Your task to perform on an android device: add a label to a message in the gmail app Image 0: 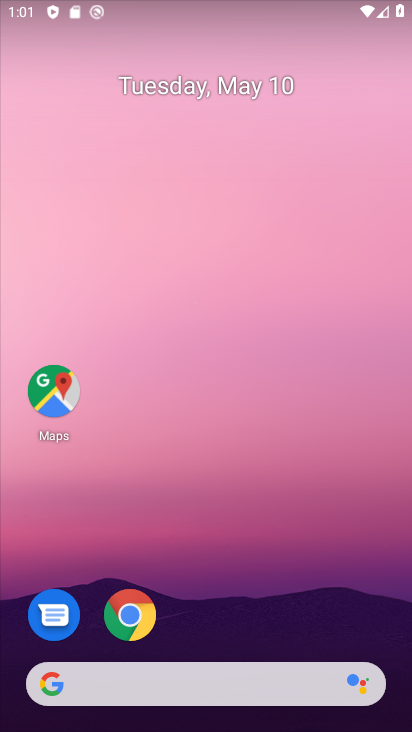
Step 0: drag from (220, 620) to (268, 16)
Your task to perform on an android device: add a label to a message in the gmail app Image 1: 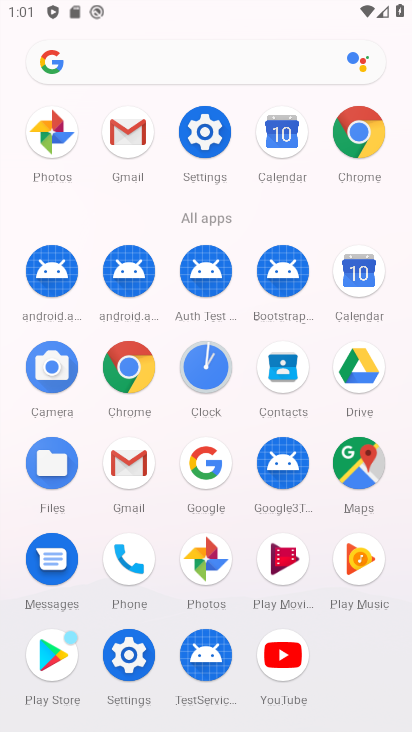
Step 1: click (129, 479)
Your task to perform on an android device: add a label to a message in the gmail app Image 2: 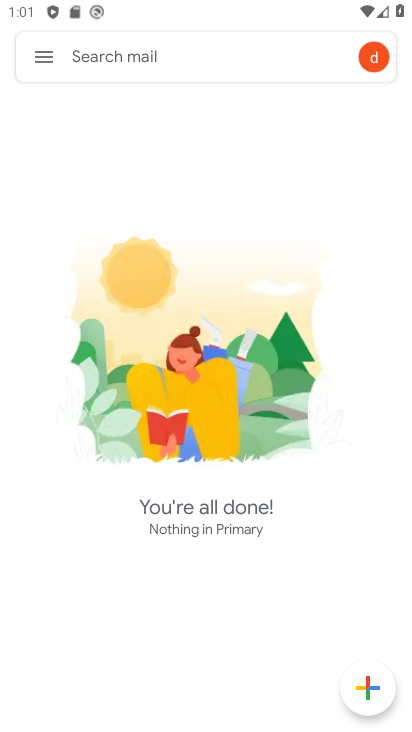
Step 2: click (51, 57)
Your task to perform on an android device: add a label to a message in the gmail app Image 3: 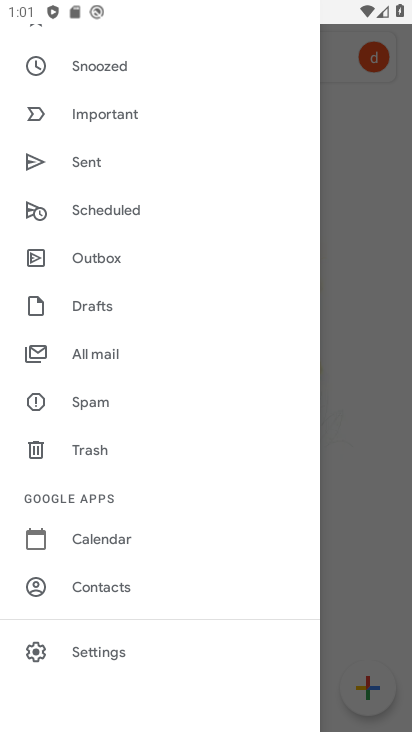
Step 3: click (119, 359)
Your task to perform on an android device: add a label to a message in the gmail app Image 4: 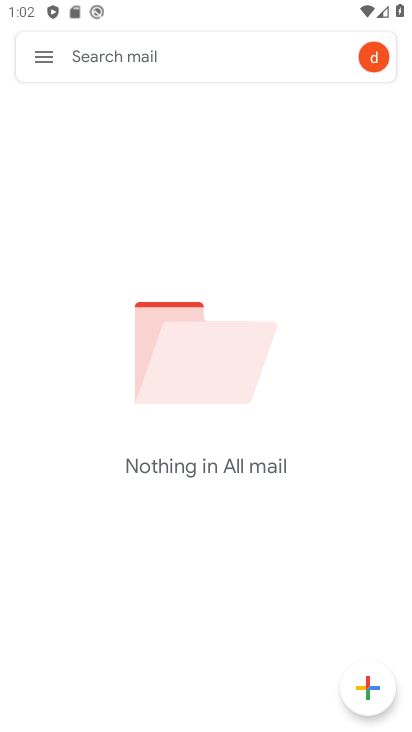
Step 4: task complete